Your task to perform on an android device: Go to CNN.com Image 0: 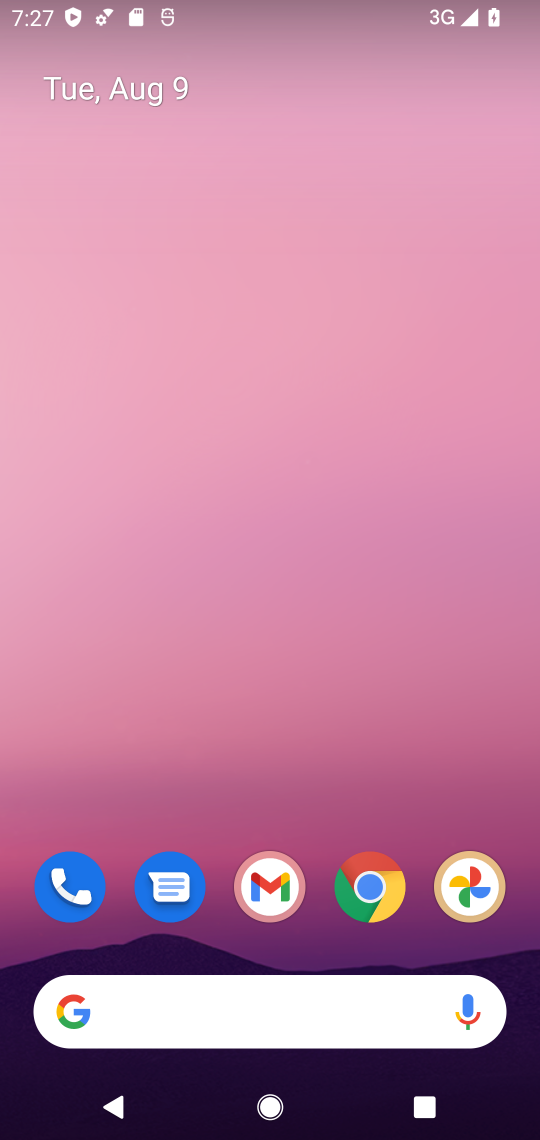
Step 0: click (278, 1008)
Your task to perform on an android device: Go to CNN.com Image 1: 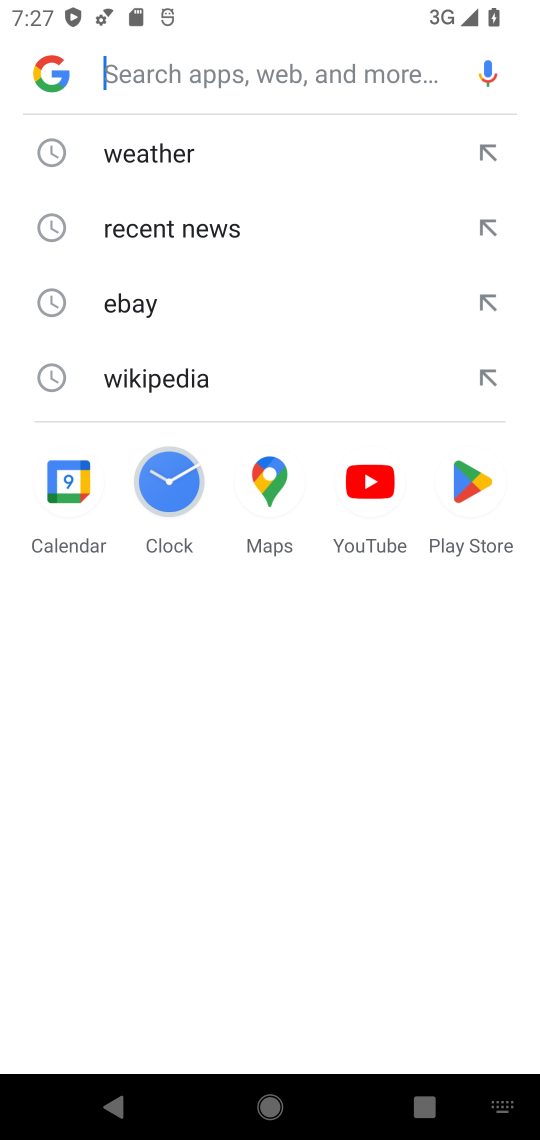
Step 1: type "cnn.com"
Your task to perform on an android device: Go to CNN.com Image 2: 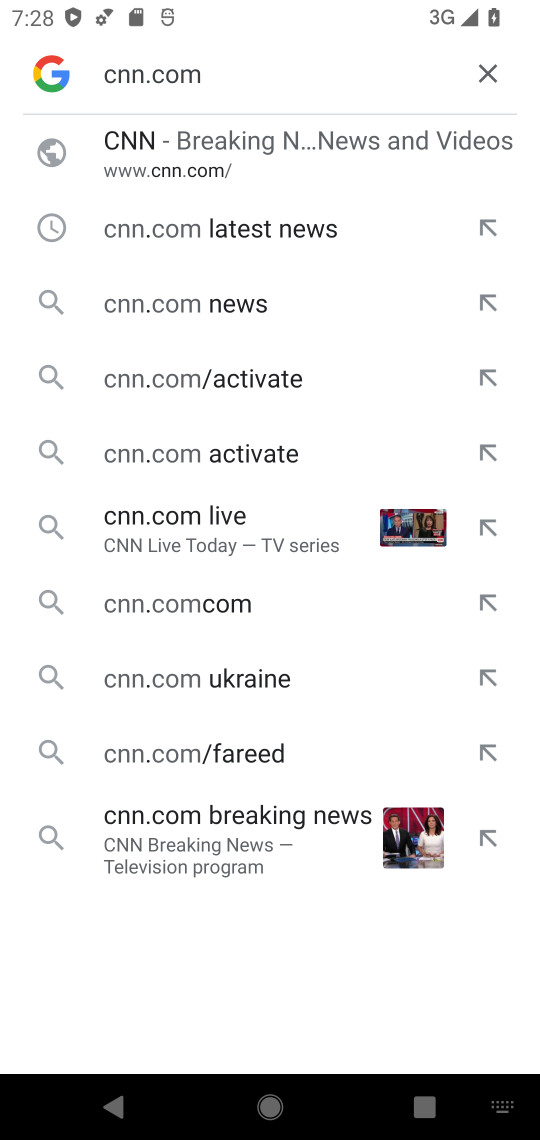
Step 2: click (324, 155)
Your task to perform on an android device: Go to CNN.com Image 3: 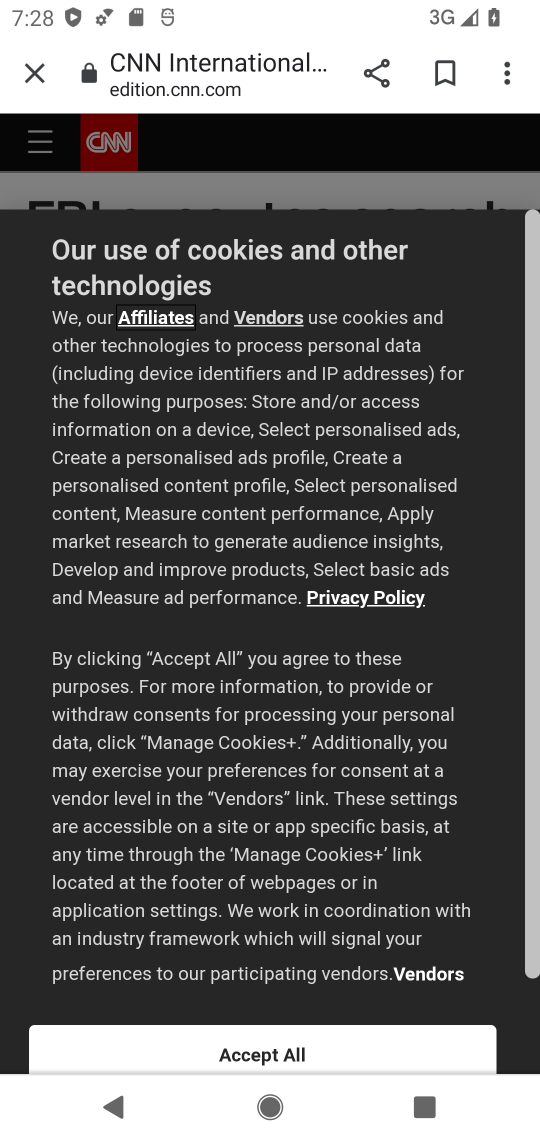
Step 3: click (332, 1049)
Your task to perform on an android device: Go to CNN.com Image 4: 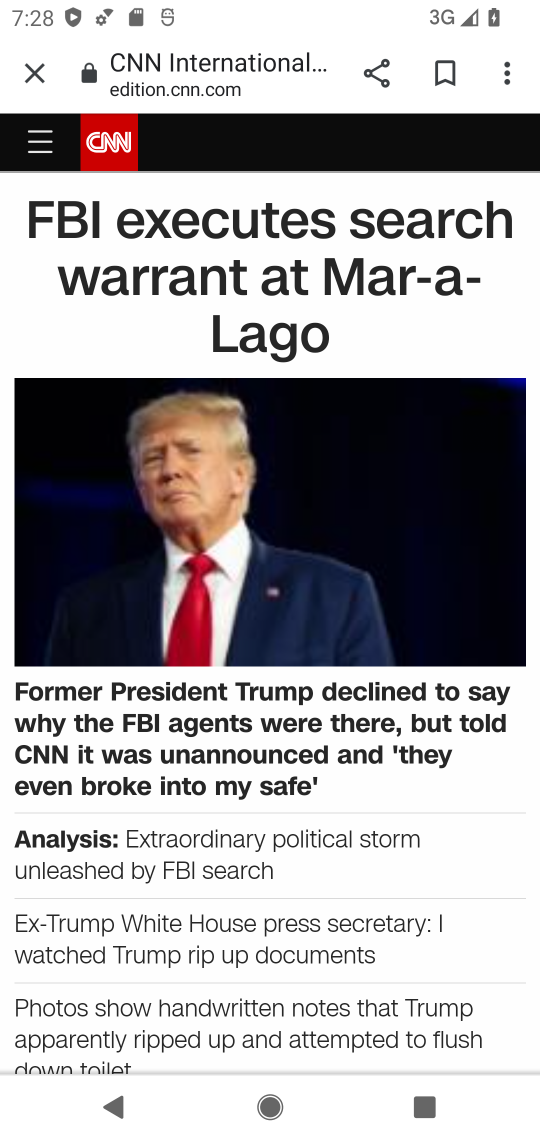
Step 4: task complete